Your task to perform on an android device: delete the emails in spam in the gmail app Image 0: 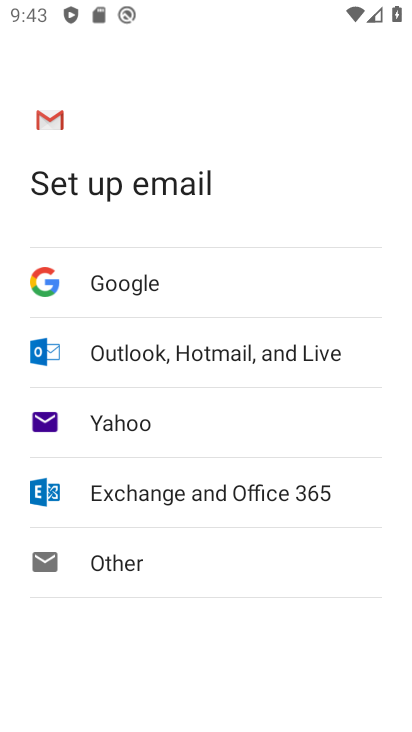
Step 0: press home button
Your task to perform on an android device: delete the emails in spam in the gmail app Image 1: 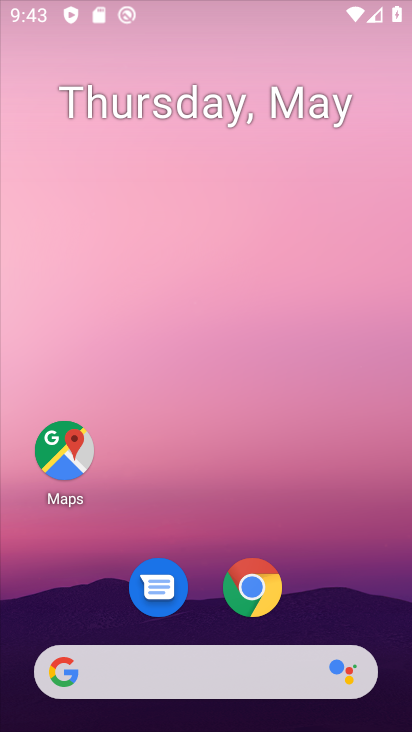
Step 1: drag from (378, 641) to (252, 1)
Your task to perform on an android device: delete the emails in spam in the gmail app Image 2: 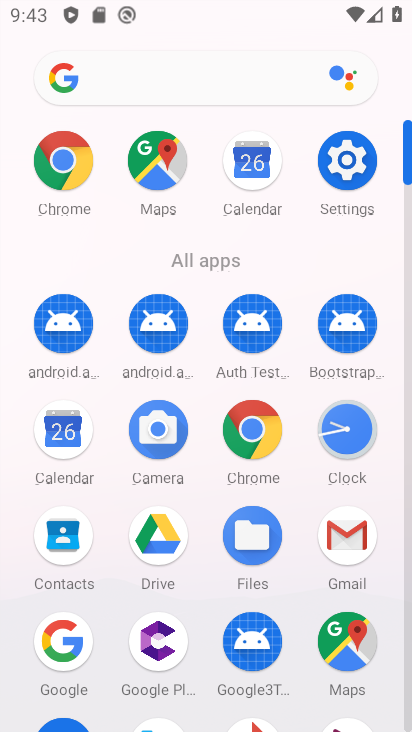
Step 2: click (362, 547)
Your task to perform on an android device: delete the emails in spam in the gmail app Image 3: 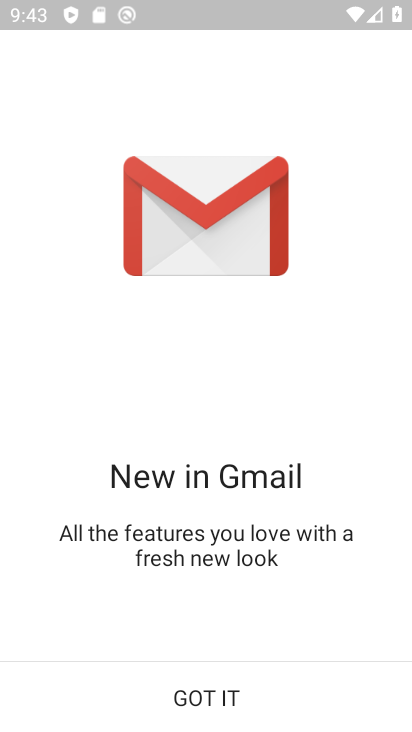
Step 3: click (240, 682)
Your task to perform on an android device: delete the emails in spam in the gmail app Image 4: 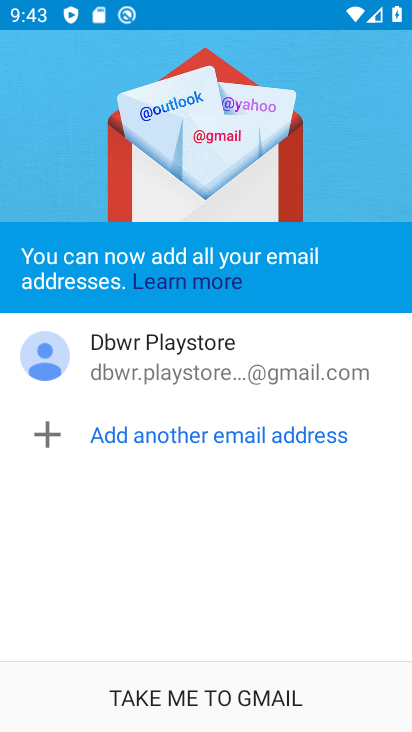
Step 4: click (229, 678)
Your task to perform on an android device: delete the emails in spam in the gmail app Image 5: 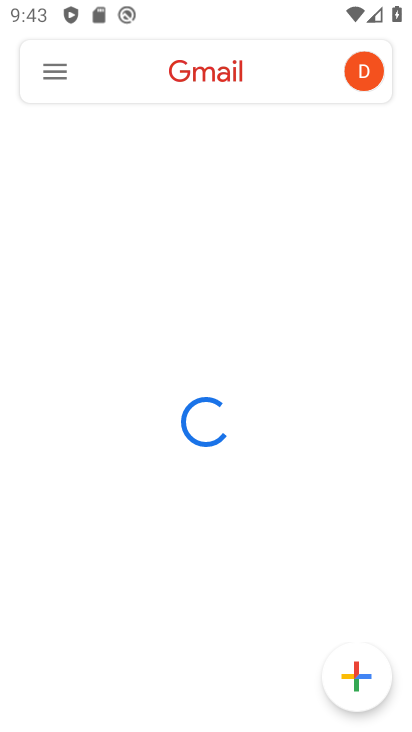
Step 5: click (54, 70)
Your task to perform on an android device: delete the emails in spam in the gmail app Image 6: 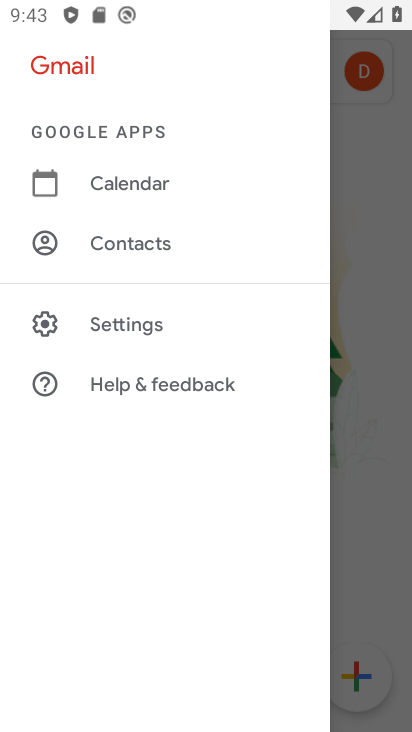
Step 6: click (134, 316)
Your task to perform on an android device: delete the emails in spam in the gmail app Image 7: 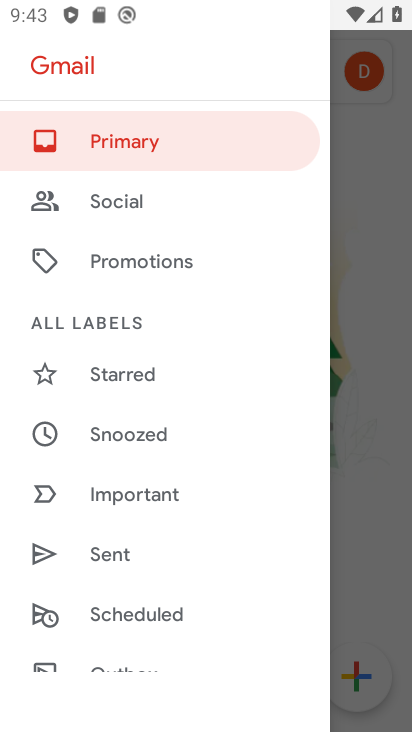
Step 7: drag from (143, 485) to (169, 130)
Your task to perform on an android device: delete the emails in spam in the gmail app Image 8: 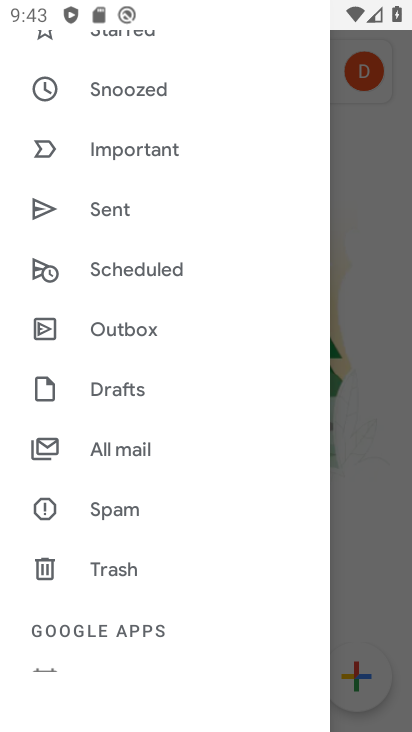
Step 8: click (92, 504)
Your task to perform on an android device: delete the emails in spam in the gmail app Image 9: 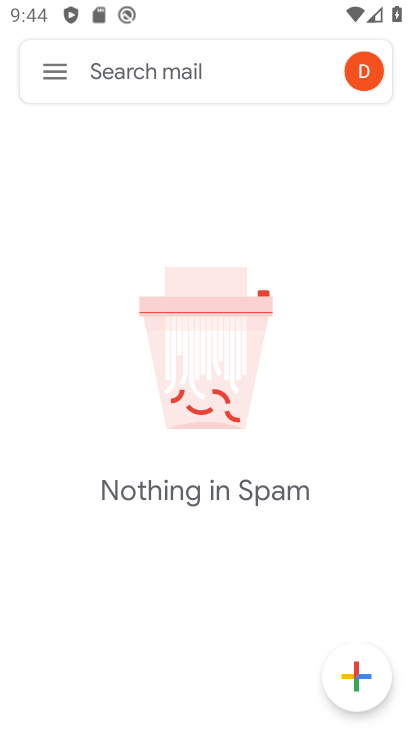
Step 9: task complete